Your task to perform on an android device: Go to display settings Image 0: 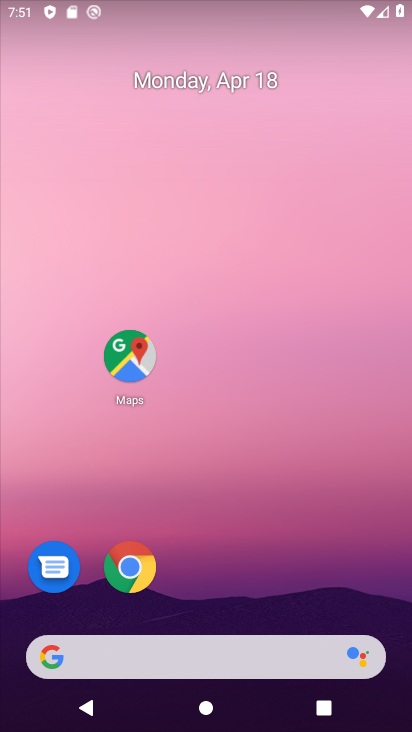
Step 0: click (237, 291)
Your task to perform on an android device: Go to display settings Image 1: 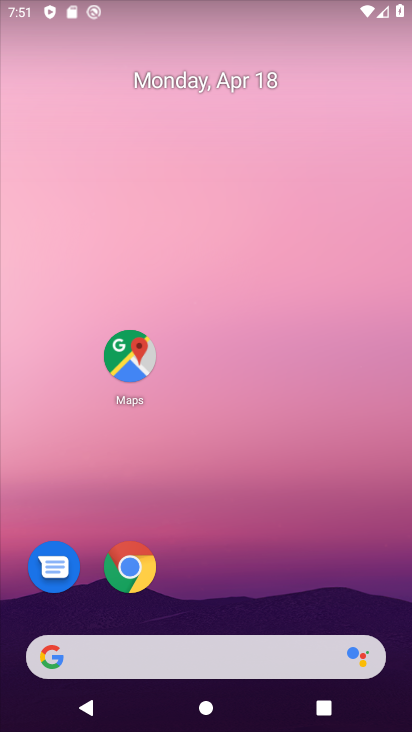
Step 1: drag from (227, 678) to (254, 363)
Your task to perform on an android device: Go to display settings Image 2: 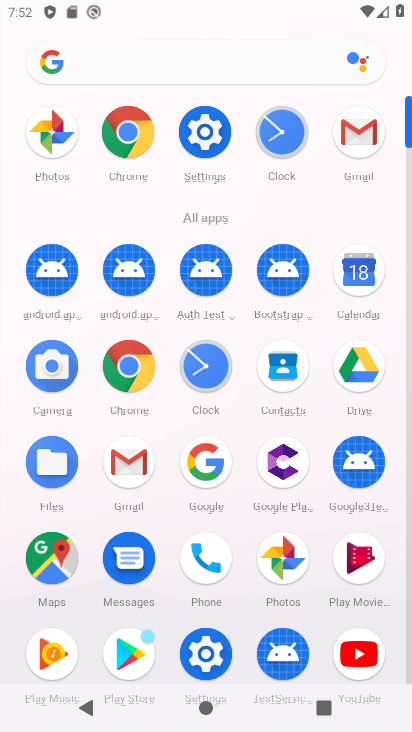
Step 2: click (215, 653)
Your task to perform on an android device: Go to display settings Image 3: 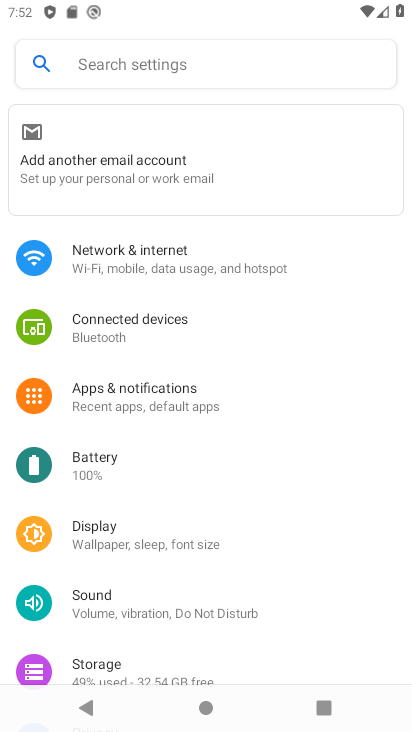
Step 3: click (106, 553)
Your task to perform on an android device: Go to display settings Image 4: 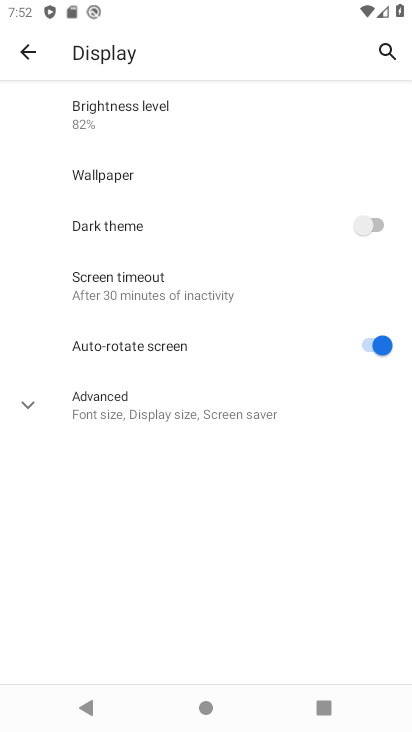
Step 4: click (58, 392)
Your task to perform on an android device: Go to display settings Image 5: 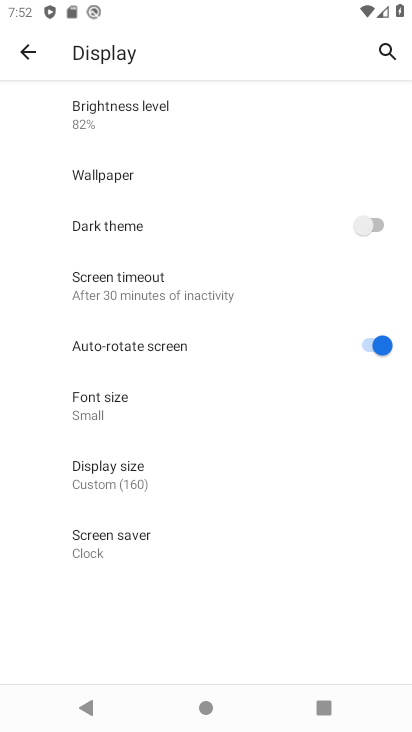
Step 5: task complete